Your task to perform on an android device: turn pop-ups on in chrome Image 0: 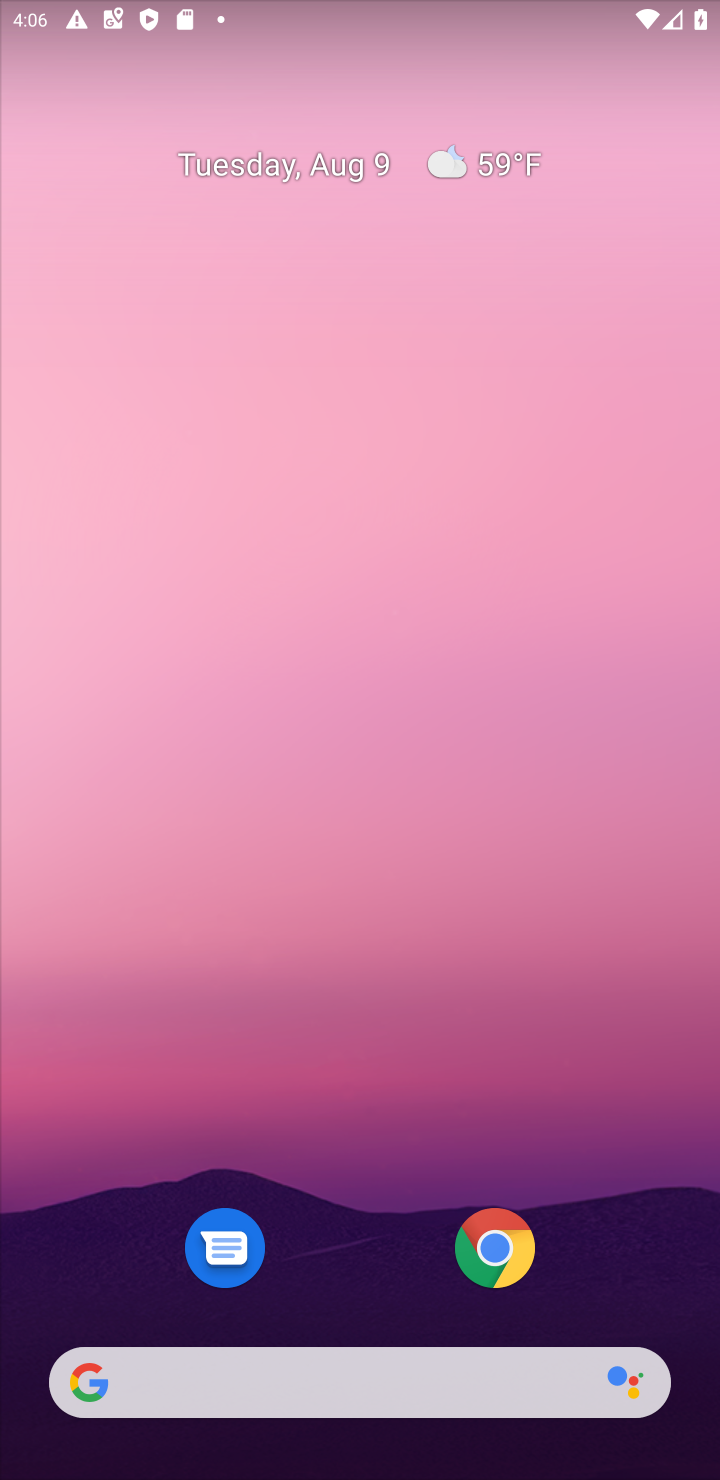
Step 0: drag from (347, 1173) to (175, 308)
Your task to perform on an android device: turn pop-ups on in chrome Image 1: 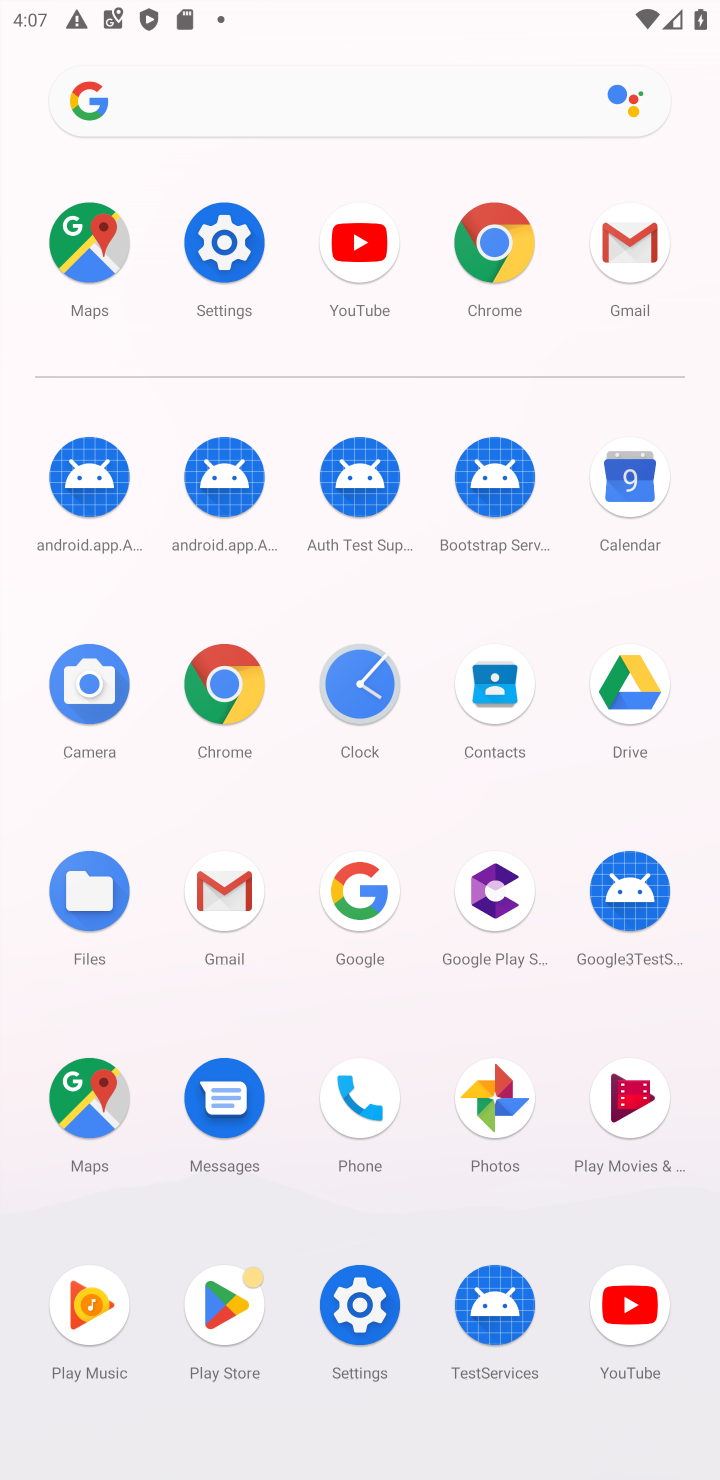
Step 1: click (223, 682)
Your task to perform on an android device: turn pop-ups on in chrome Image 2: 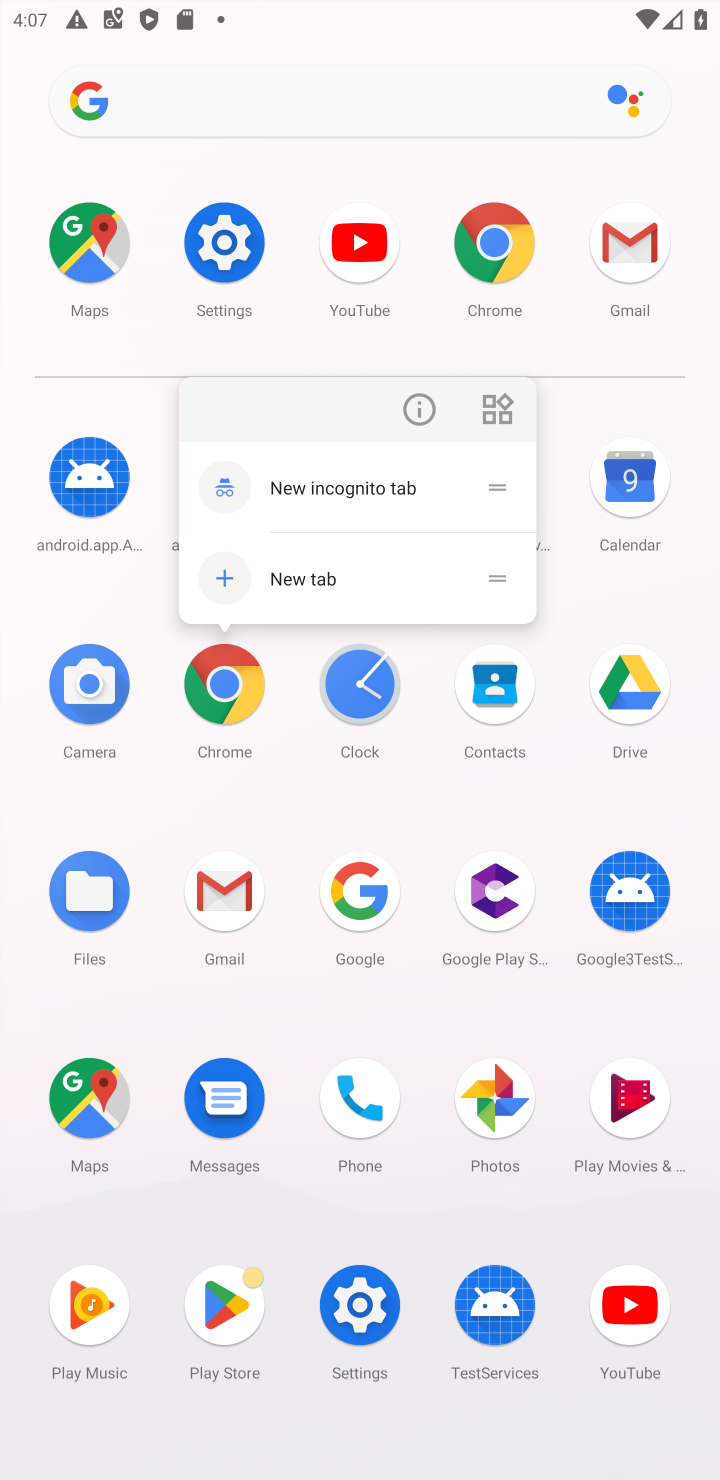
Step 2: click (217, 694)
Your task to perform on an android device: turn pop-ups on in chrome Image 3: 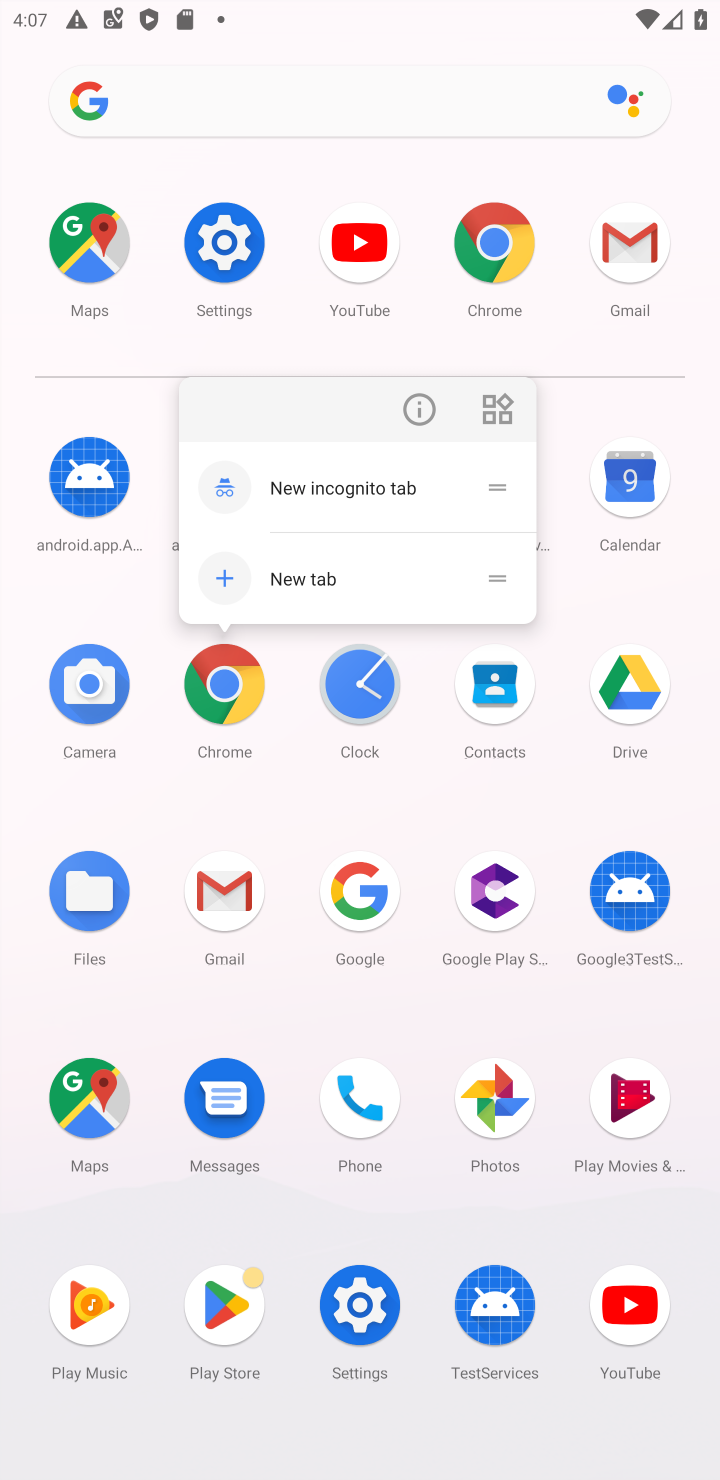
Step 3: click (217, 694)
Your task to perform on an android device: turn pop-ups on in chrome Image 4: 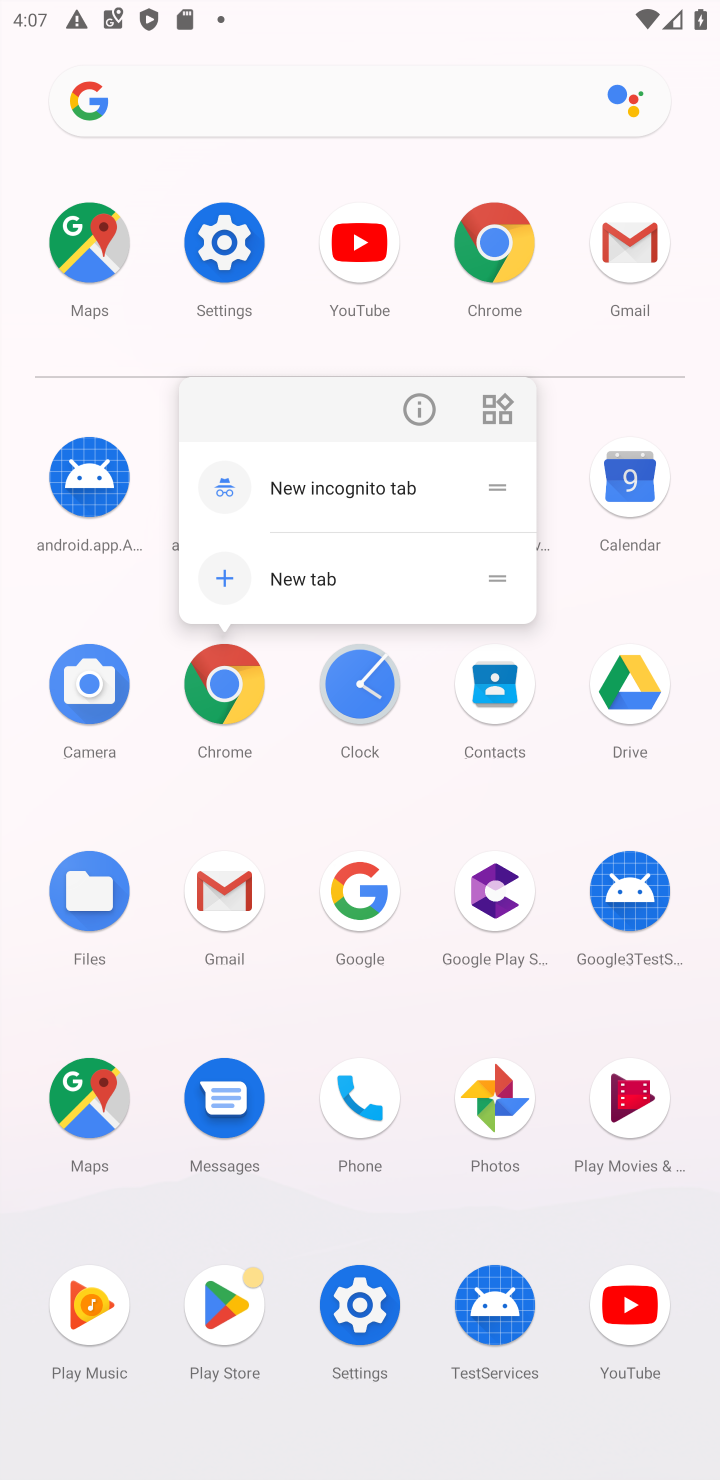
Step 4: click (426, 840)
Your task to perform on an android device: turn pop-ups on in chrome Image 5: 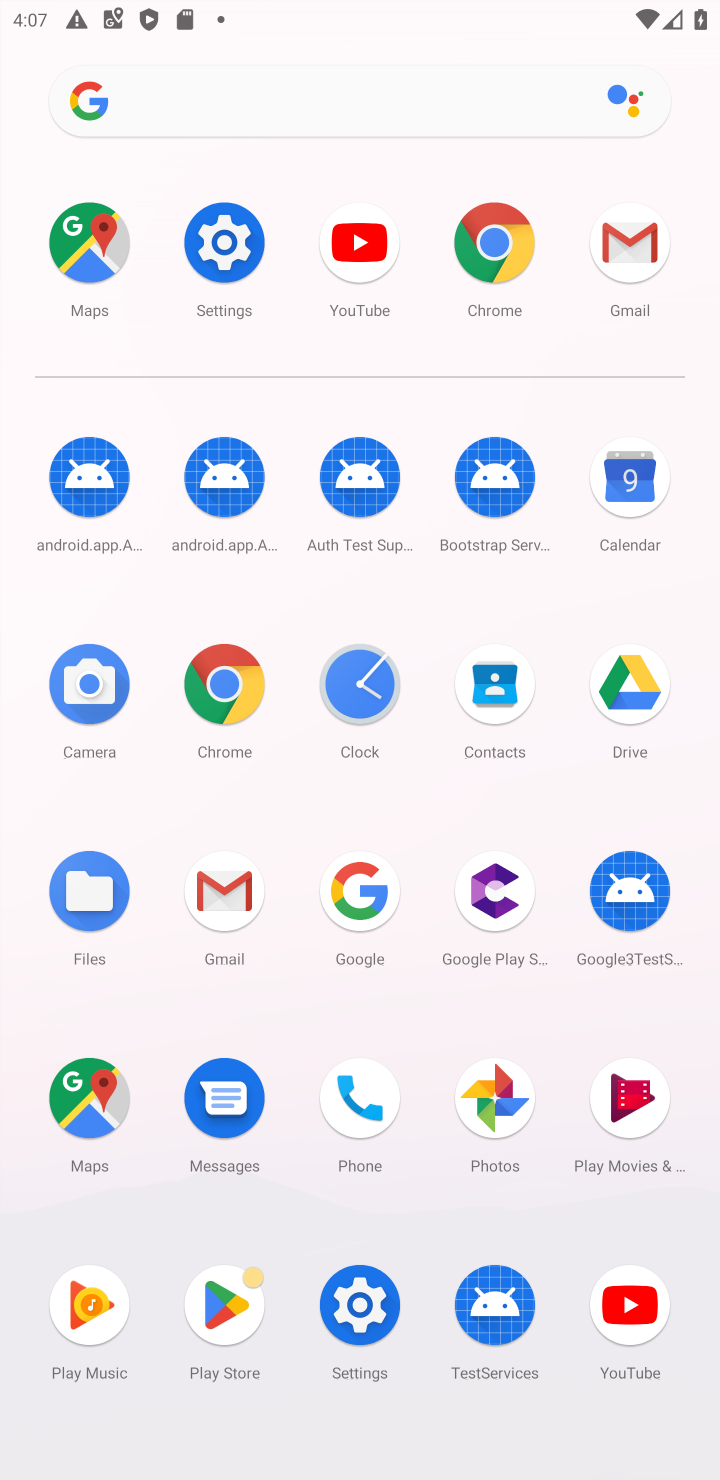
Step 5: click (181, 800)
Your task to perform on an android device: turn pop-ups on in chrome Image 6: 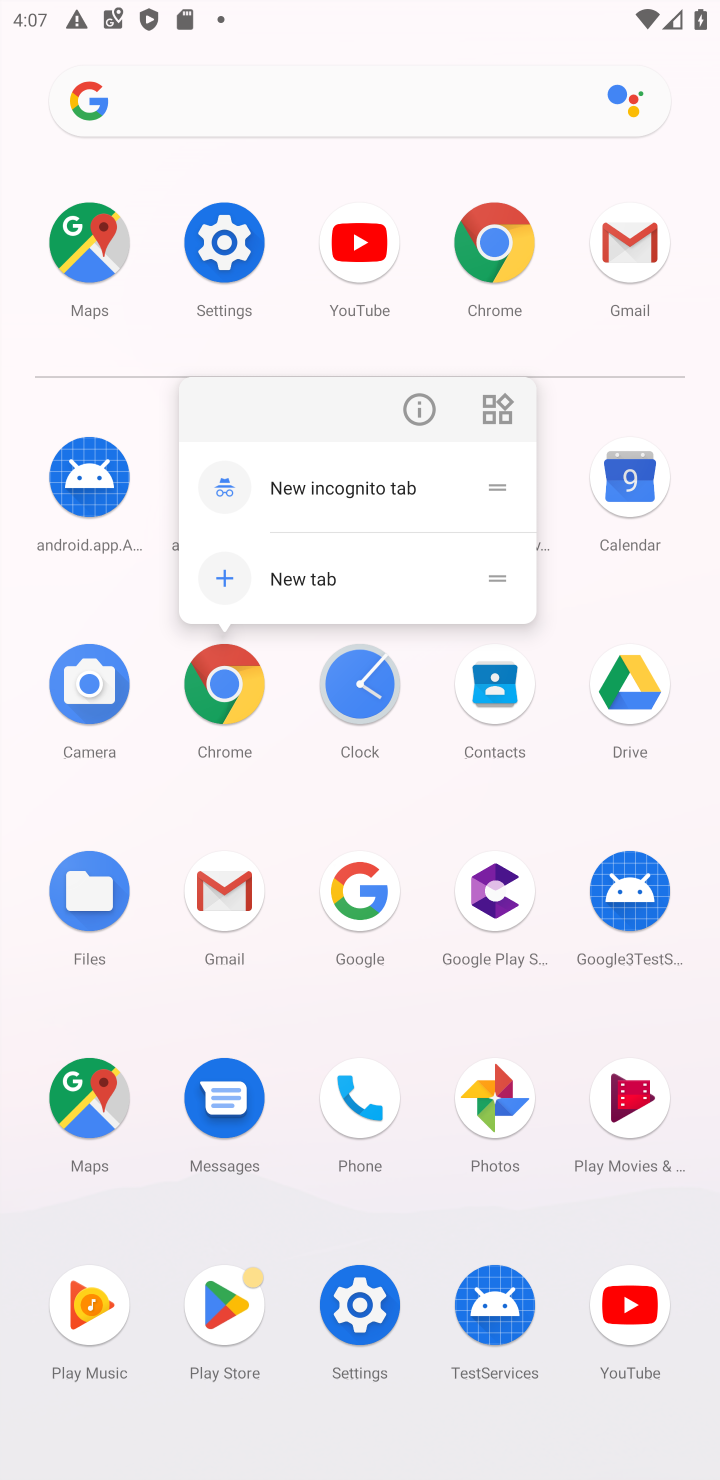
Step 6: click (314, 803)
Your task to perform on an android device: turn pop-ups on in chrome Image 7: 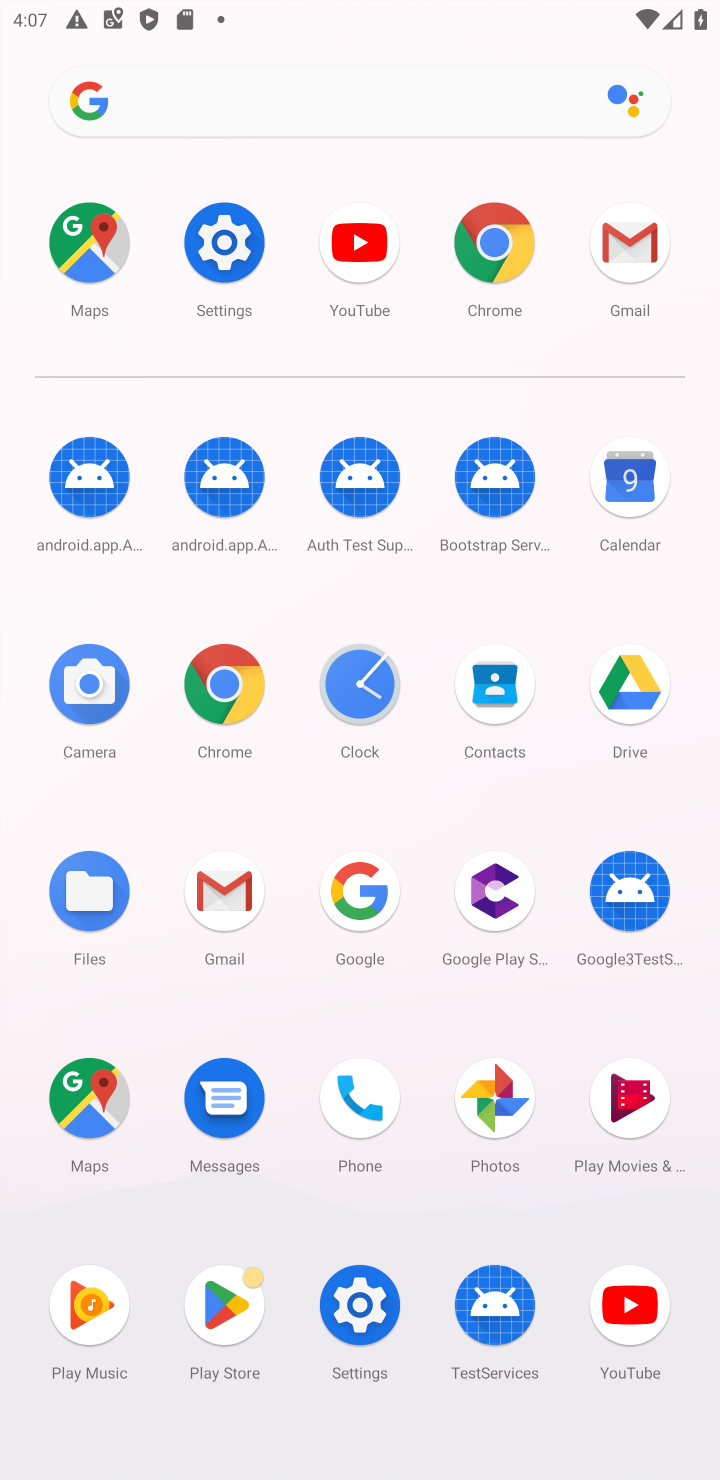
Step 7: click (224, 677)
Your task to perform on an android device: turn pop-ups on in chrome Image 8: 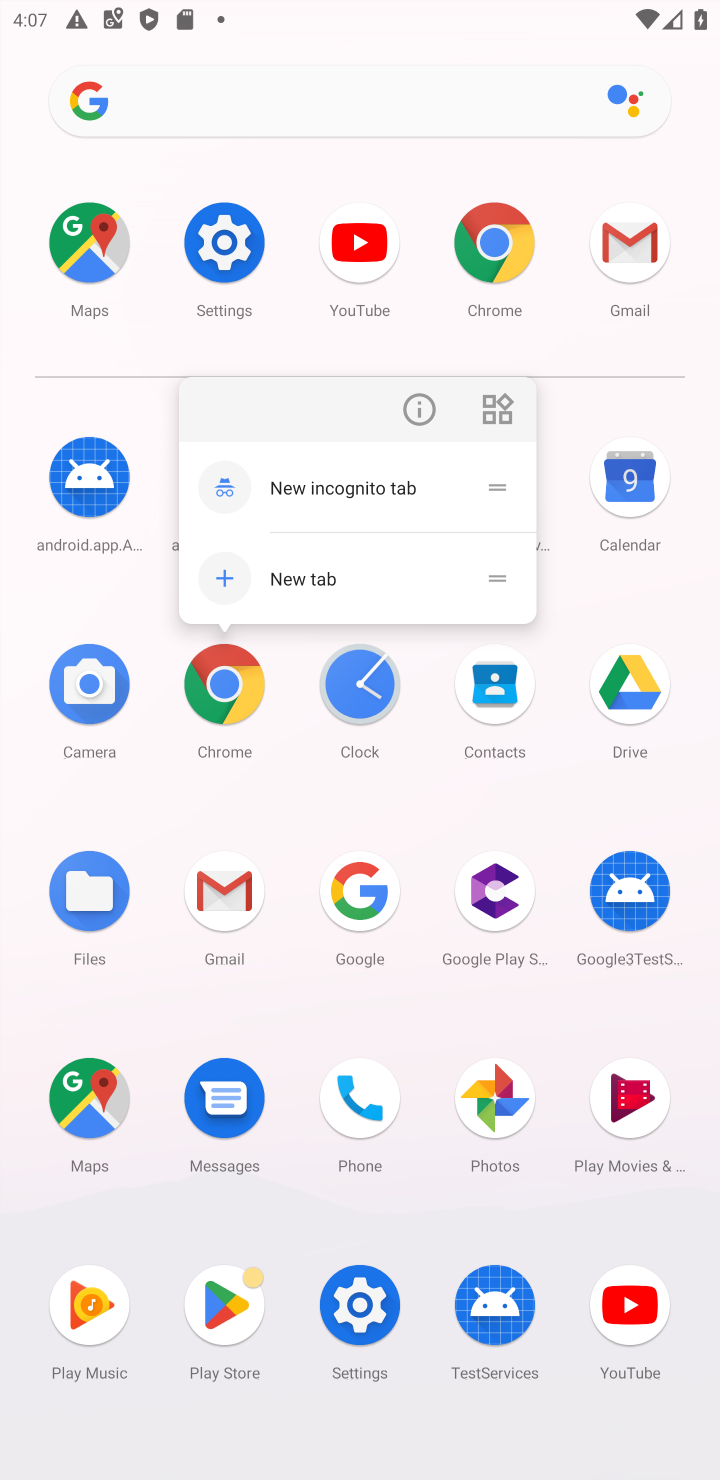
Step 8: click (224, 677)
Your task to perform on an android device: turn pop-ups on in chrome Image 9: 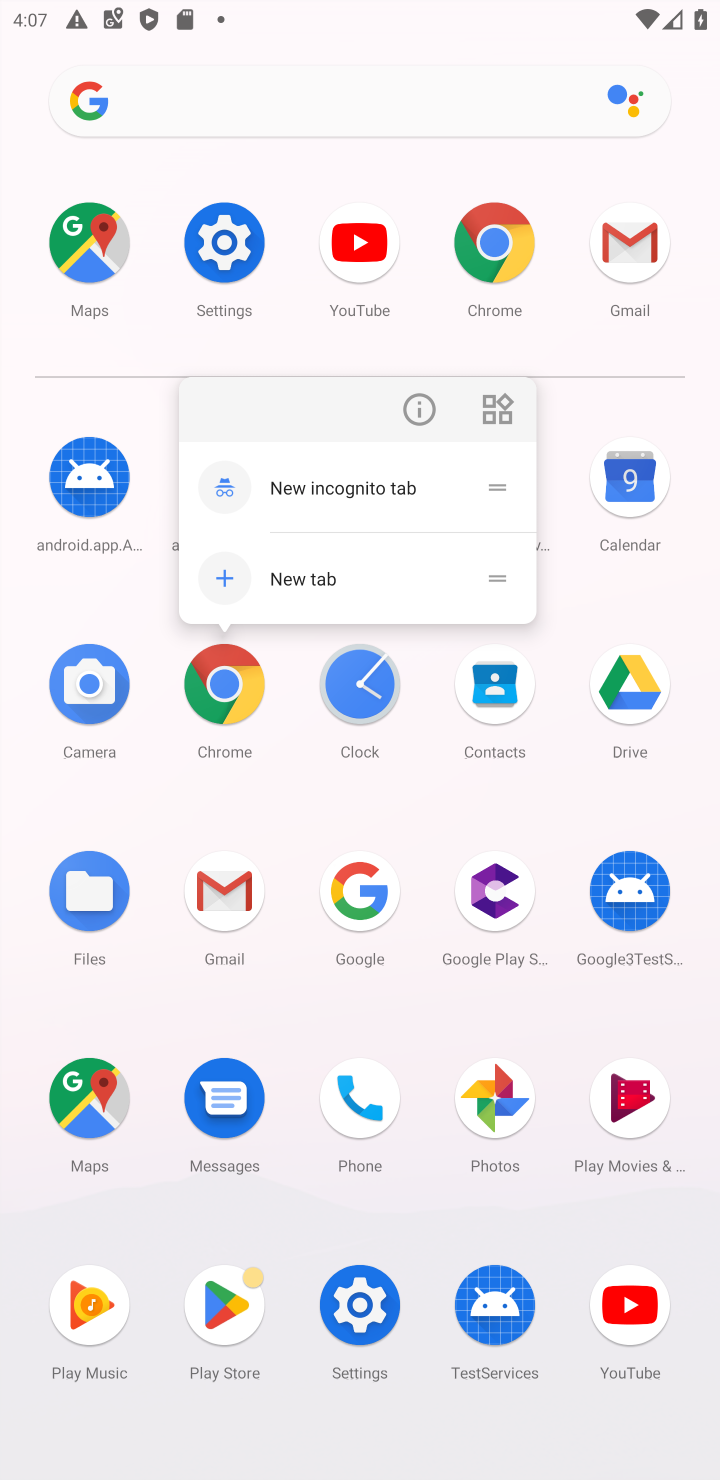
Step 9: click (224, 677)
Your task to perform on an android device: turn pop-ups on in chrome Image 10: 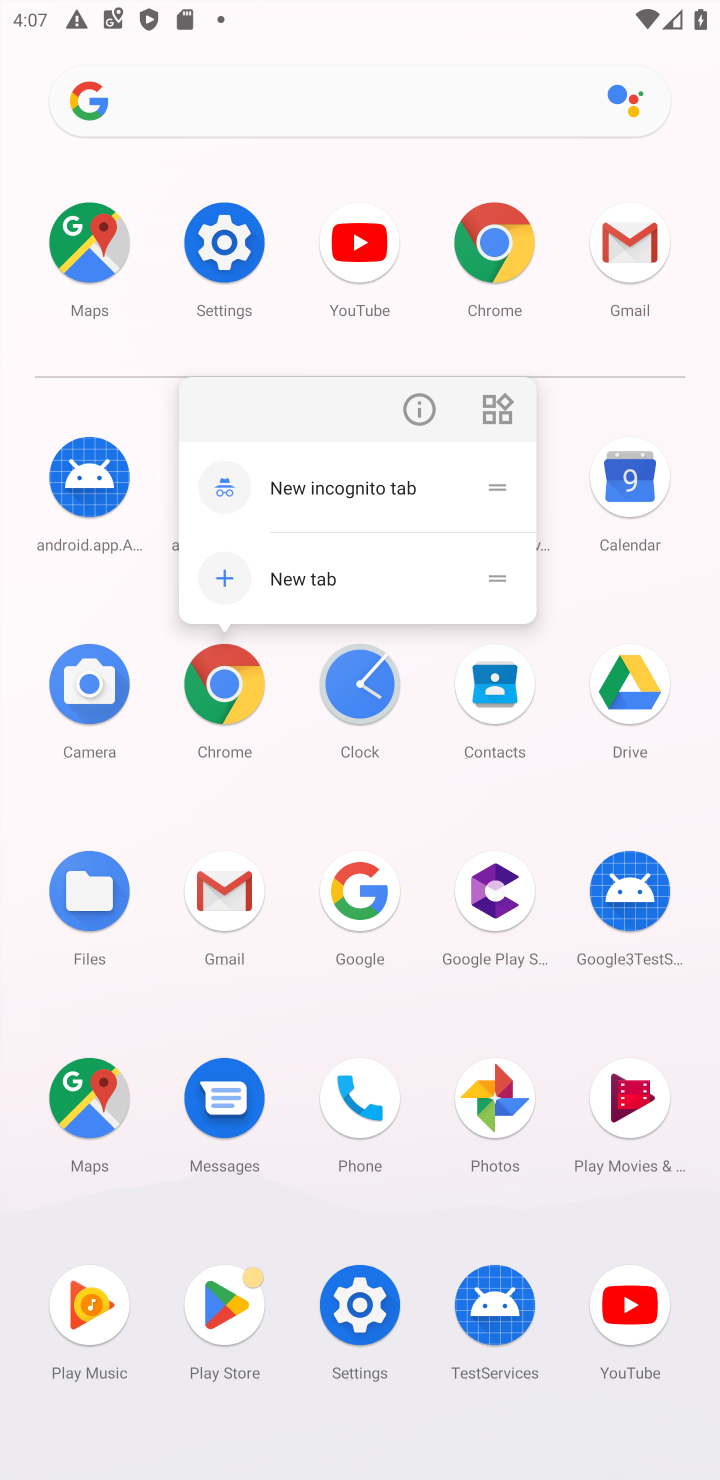
Step 10: click (215, 700)
Your task to perform on an android device: turn pop-ups on in chrome Image 11: 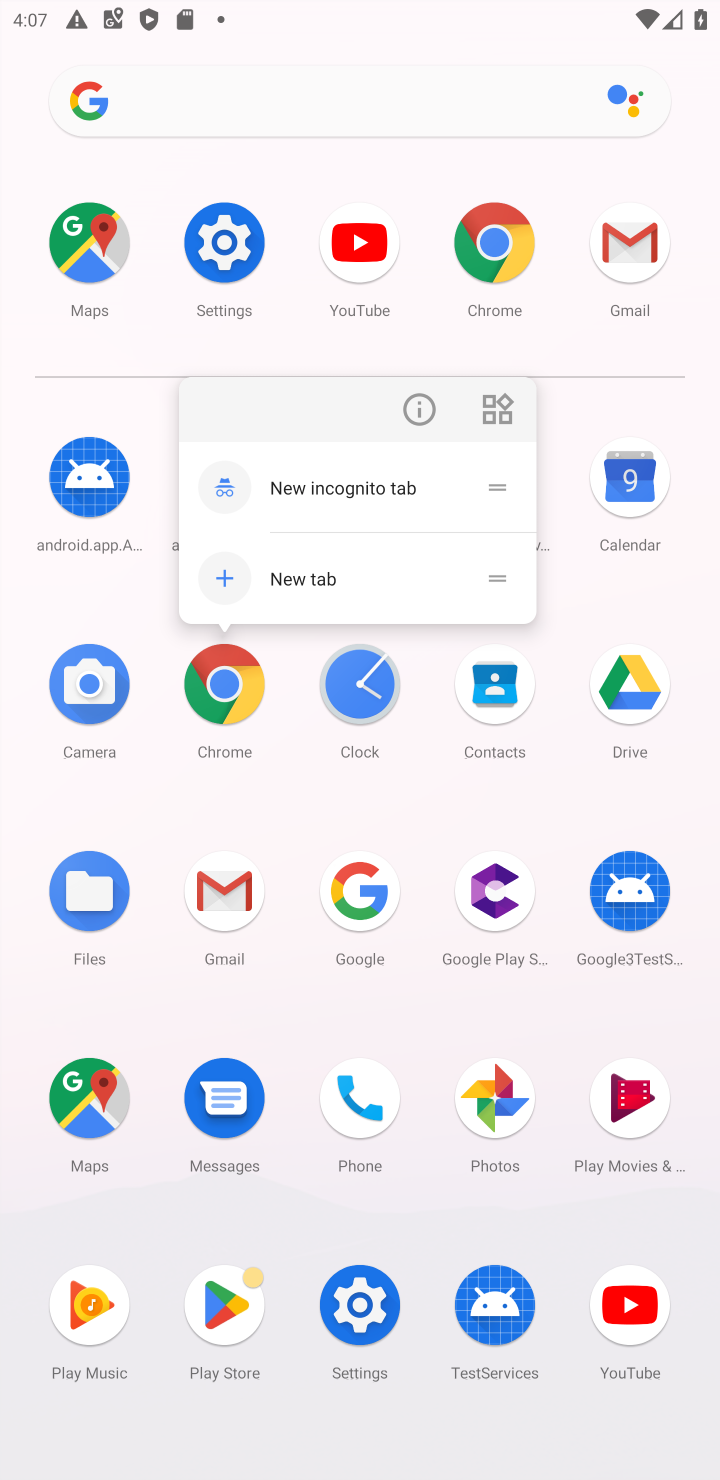
Step 11: task complete